Your task to perform on an android device: toggle pop-ups in chrome Image 0: 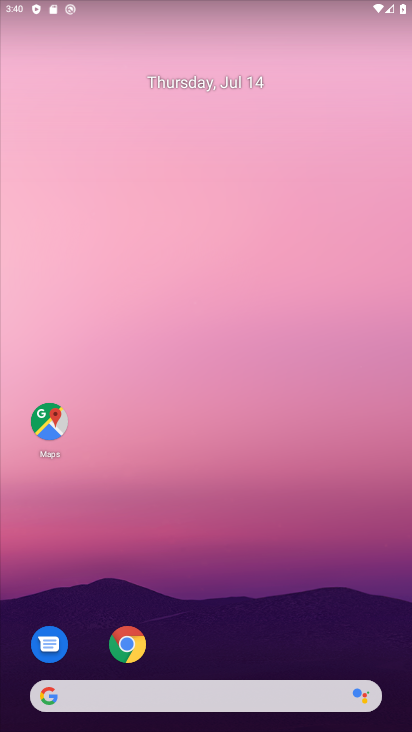
Step 0: drag from (248, 563) to (293, 18)
Your task to perform on an android device: toggle pop-ups in chrome Image 1: 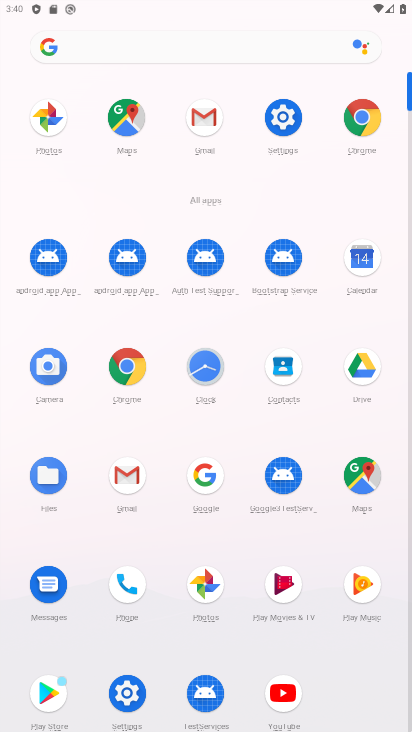
Step 1: click (135, 363)
Your task to perform on an android device: toggle pop-ups in chrome Image 2: 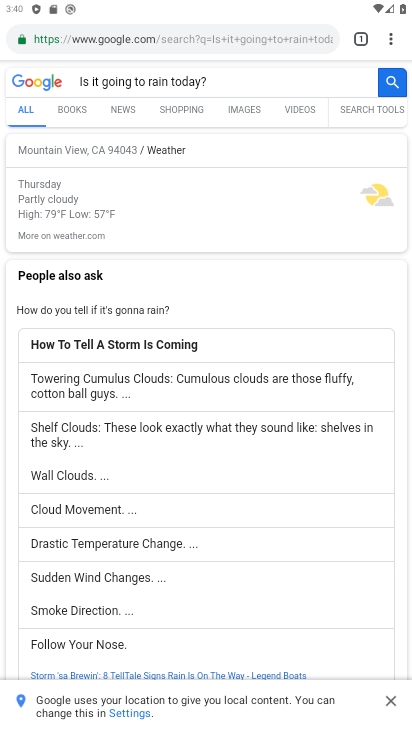
Step 2: drag from (391, 36) to (237, 430)
Your task to perform on an android device: toggle pop-ups in chrome Image 3: 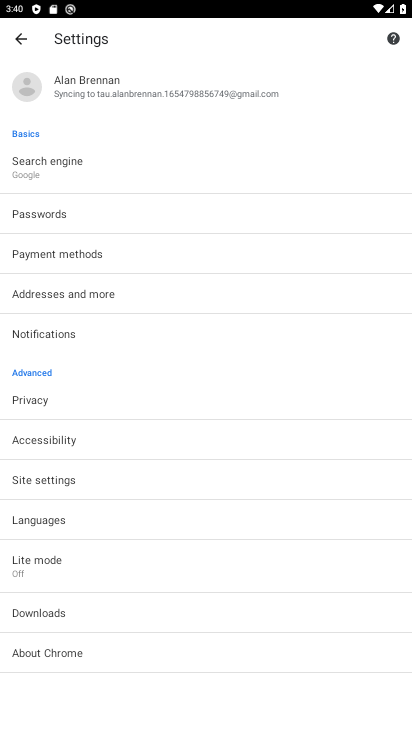
Step 3: click (51, 473)
Your task to perform on an android device: toggle pop-ups in chrome Image 4: 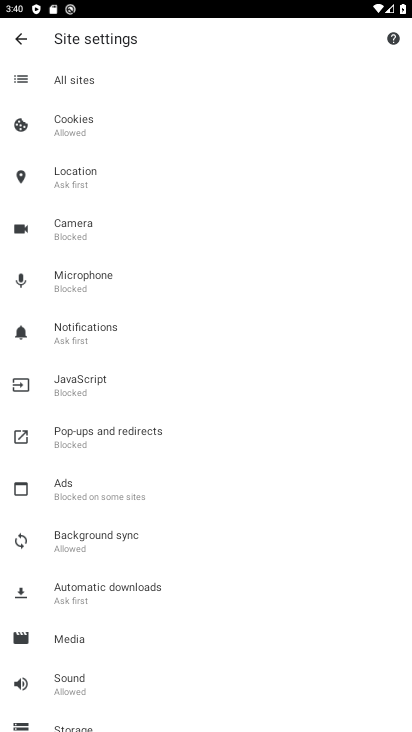
Step 4: click (102, 430)
Your task to perform on an android device: toggle pop-ups in chrome Image 5: 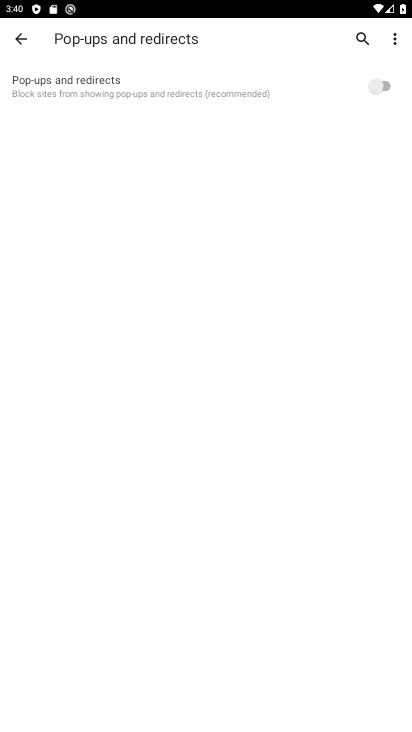
Step 5: click (320, 83)
Your task to perform on an android device: toggle pop-ups in chrome Image 6: 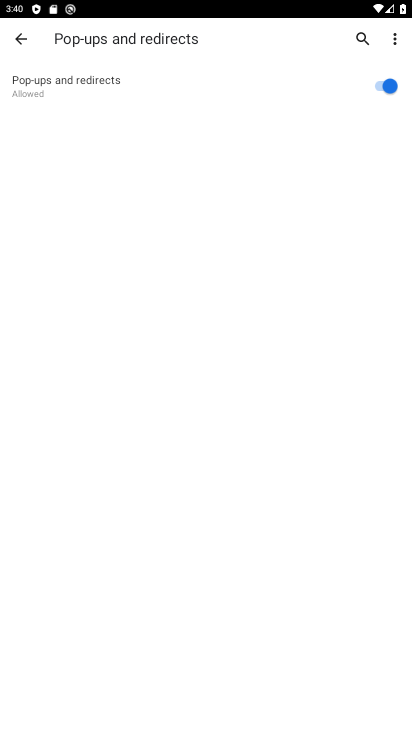
Step 6: task complete